Your task to perform on an android device: open device folders in google photos Image 0: 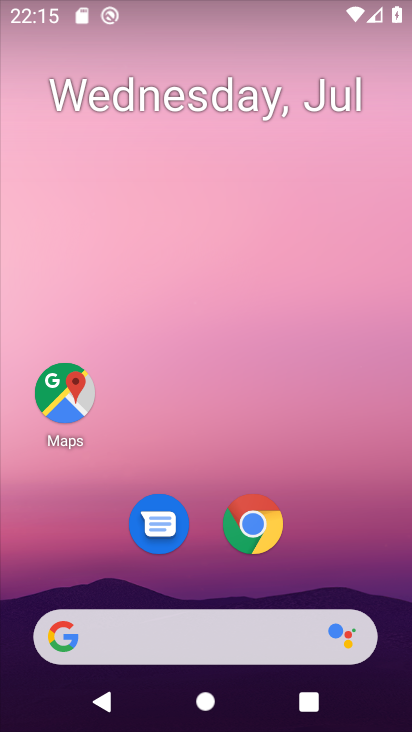
Step 0: drag from (323, 537) to (328, 35)
Your task to perform on an android device: open device folders in google photos Image 1: 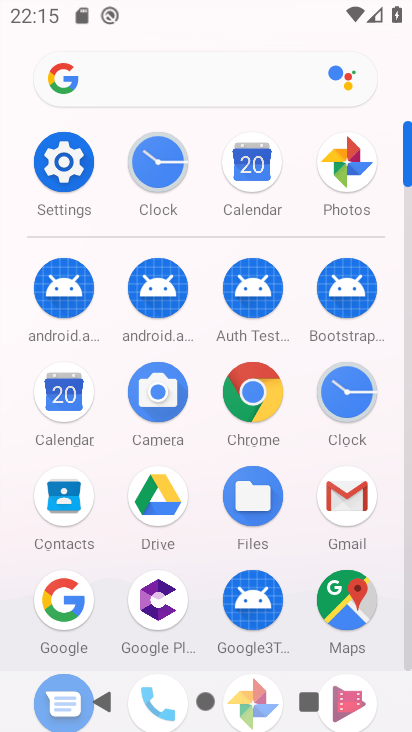
Step 1: click (350, 164)
Your task to perform on an android device: open device folders in google photos Image 2: 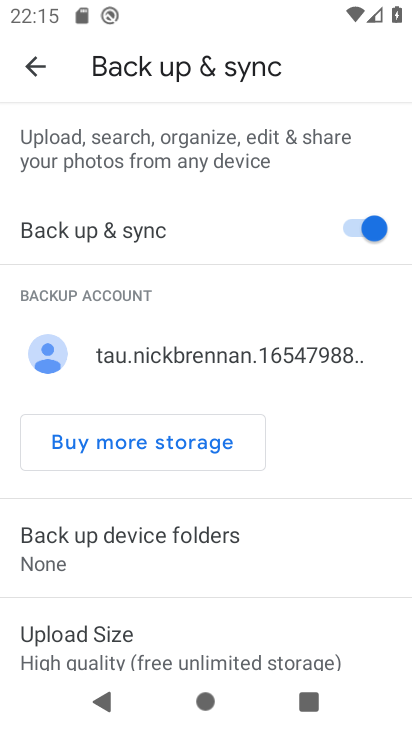
Step 2: click (38, 61)
Your task to perform on an android device: open device folders in google photos Image 3: 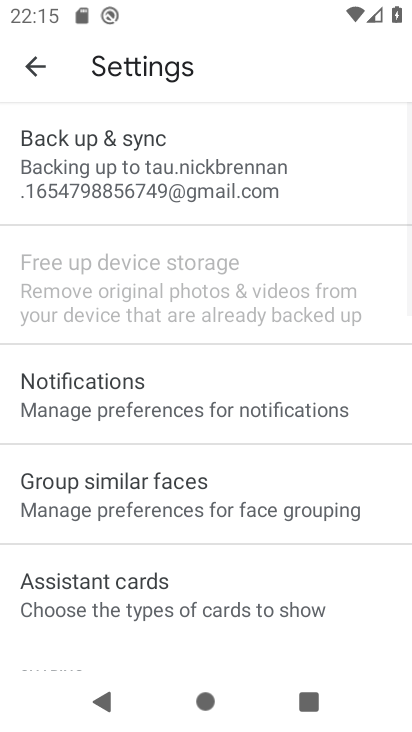
Step 3: click (40, 58)
Your task to perform on an android device: open device folders in google photos Image 4: 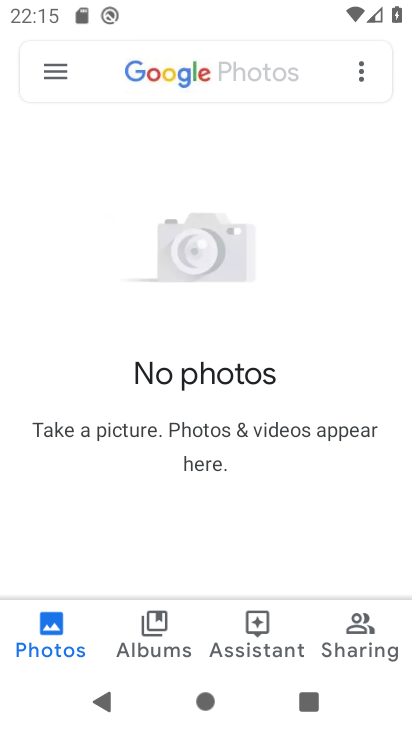
Step 4: click (49, 73)
Your task to perform on an android device: open device folders in google photos Image 5: 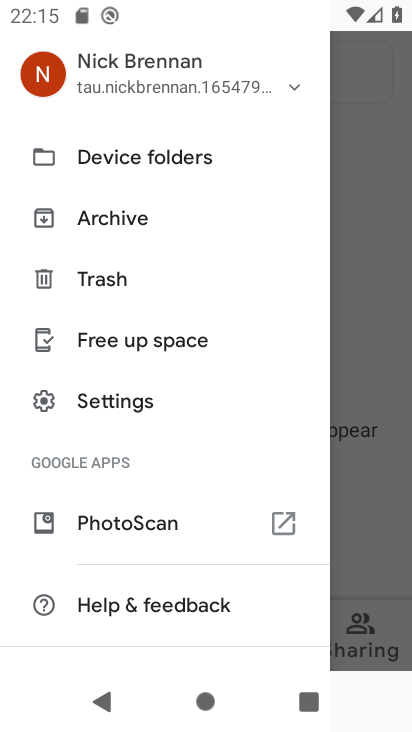
Step 5: click (103, 155)
Your task to perform on an android device: open device folders in google photos Image 6: 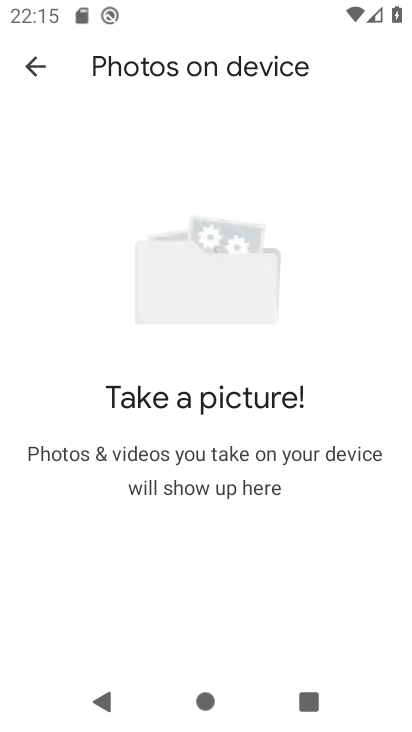
Step 6: task complete